Your task to perform on an android device: Go to Reddit.com Image 0: 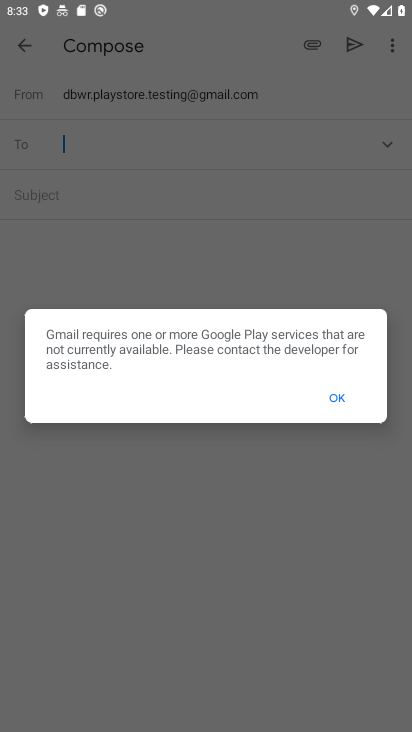
Step 0: press home button
Your task to perform on an android device: Go to Reddit.com Image 1: 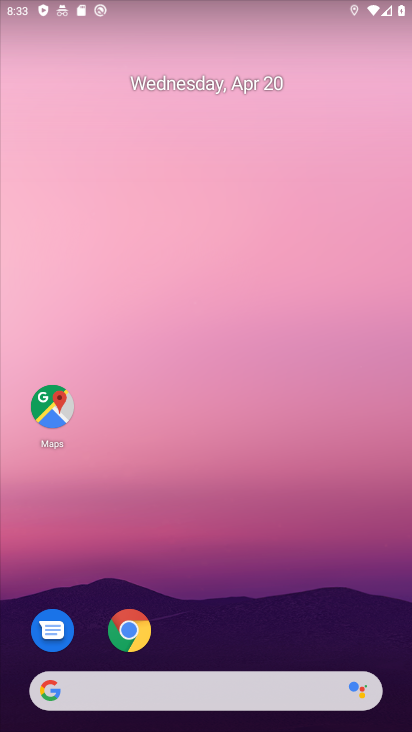
Step 1: click (125, 625)
Your task to perform on an android device: Go to Reddit.com Image 2: 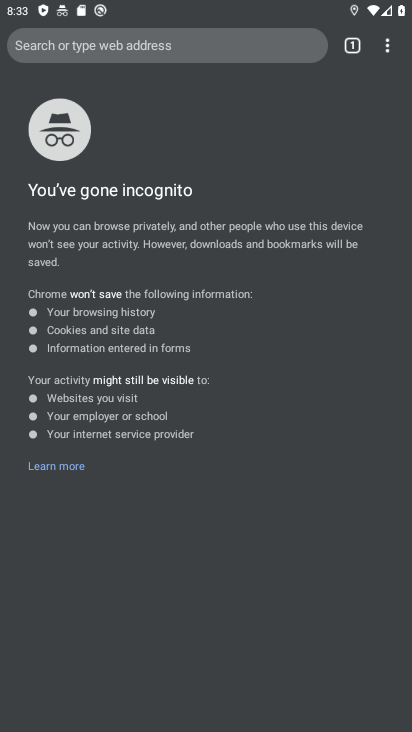
Step 2: click (359, 41)
Your task to perform on an android device: Go to Reddit.com Image 3: 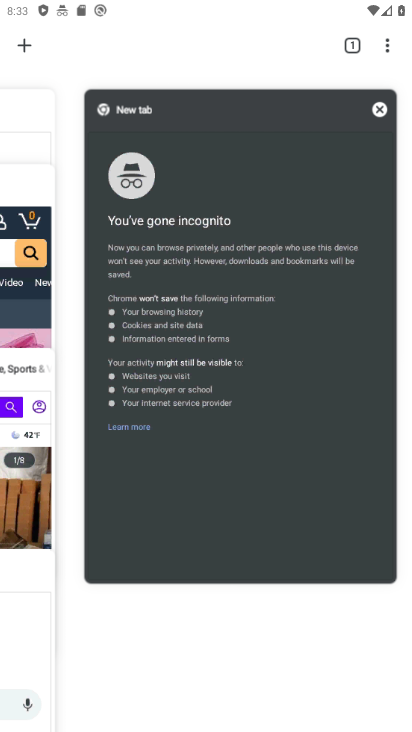
Step 3: click (376, 105)
Your task to perform on an android device: Go to Reddit.com Image 4: 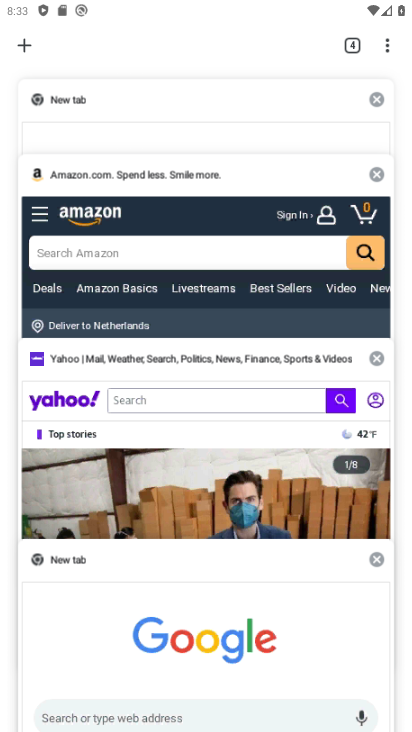
Step 4: click (122, 119)
Your task to perform on an android device: Go to Reddit.com Image 5: 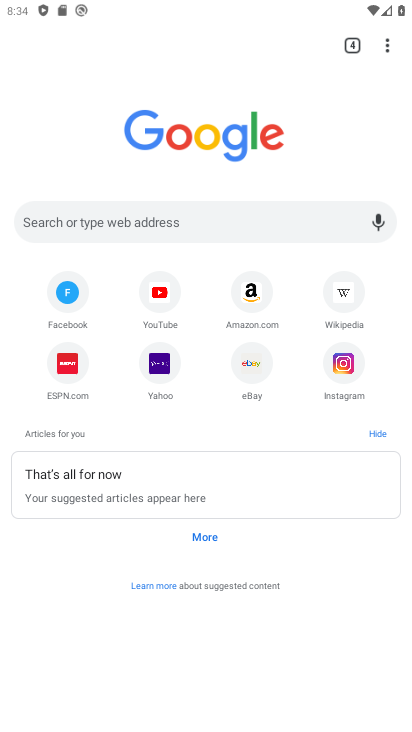
Step 5: click (174, 217)
Your task to perform on an android device: Go to Reddit.com Image 6: 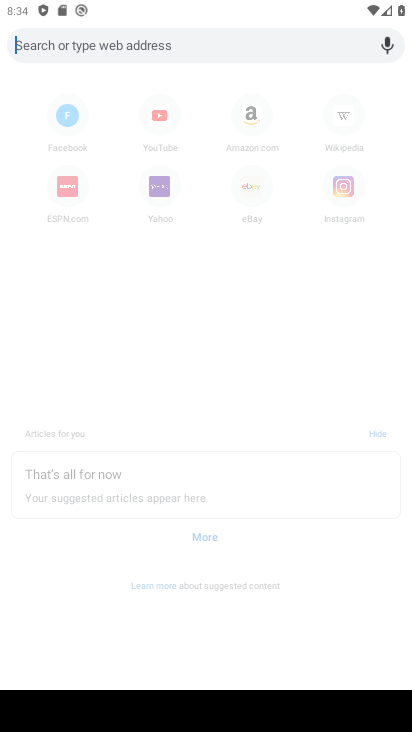
Step 6: type "reddit.com"
Your task to perform on an android device: Go to Reddit.com Image 7: 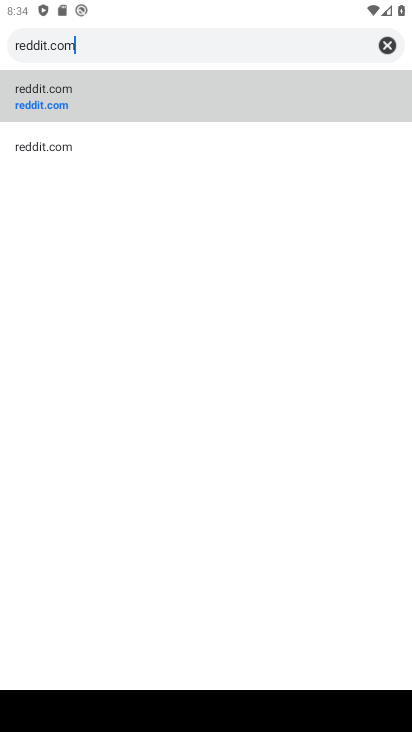
Step 7: click (127, 83)
Your task to perform on an android device: Go to Reddit.com Image 8: 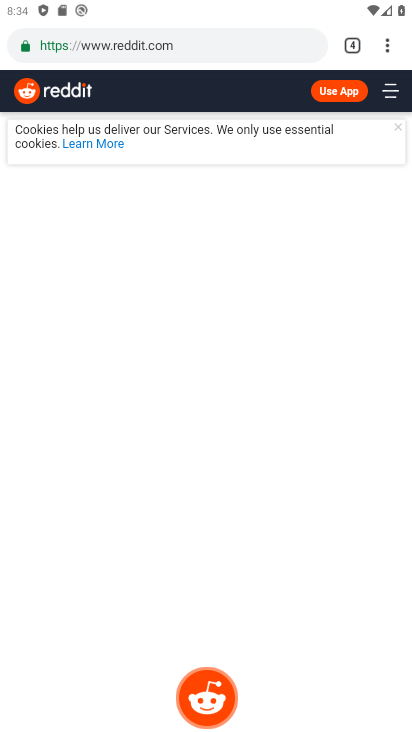
Step 8: task complete